Your task to perform on an android device: Open my contact list Image 0: 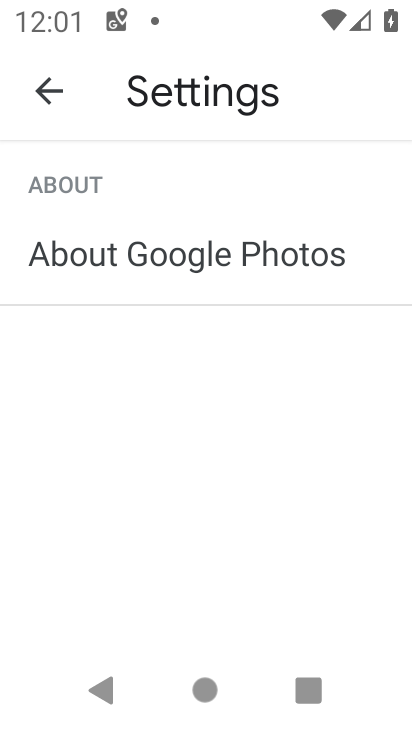
Step 0: press home button
Your task to perform on an android device: Open my contact list Image 1: 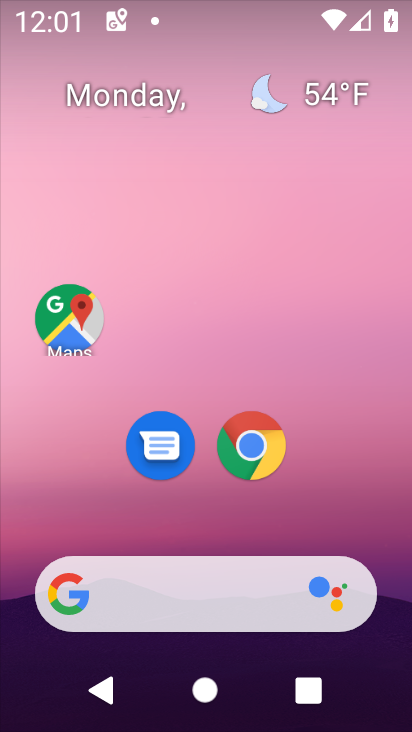
Step 1: drag from (388, 515) to (379, 45)
Your task to perform on an android device: Open my contact list Image 2: 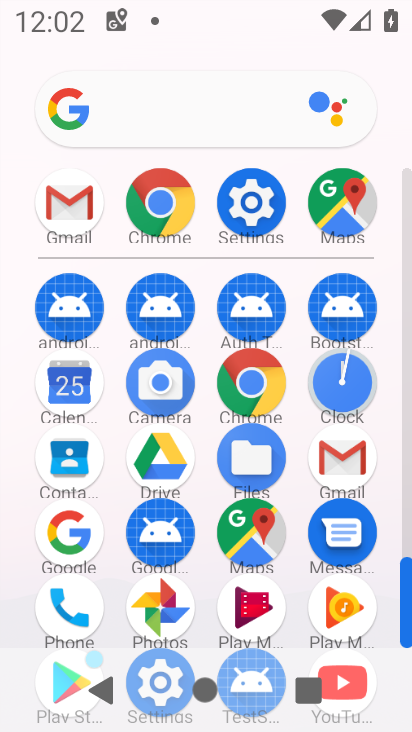
Step 2: click (62, 452)
Your task to perform on an android device: Open my contact list Image 3: 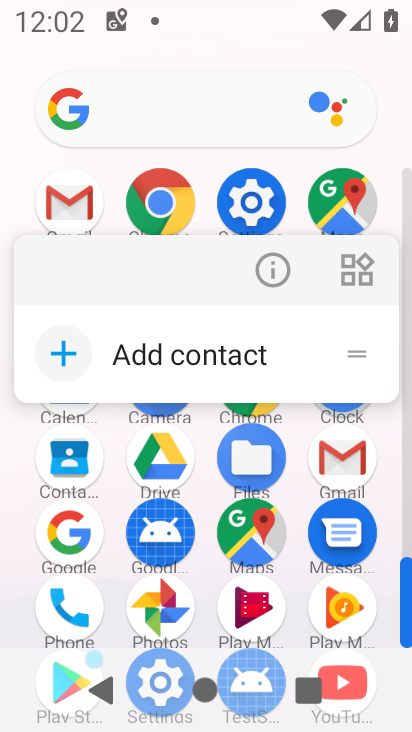
Step 3: click (71, 463)
Your task to perform on an android device: Open my contact list Image 4: 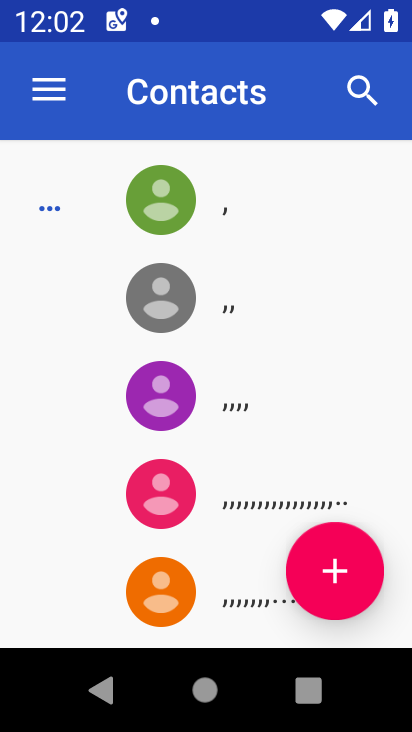
Step 4: task complete